Your task to perform on an android device: clear history in the chrome app Image 0: 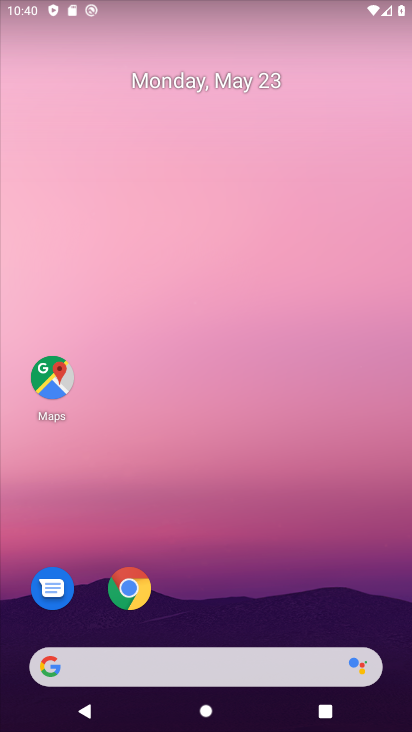
Step 0: drag from (358, 609) to (388, 209)
Your task to perform on an android device: clear history in the chrome app Image 1: 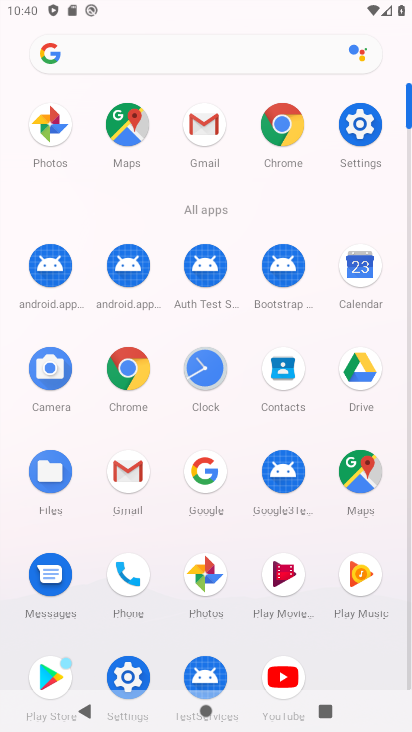
Step 1: click (128, 387)
Your task to perform on an android device: clear history in the chrome app Image 2: 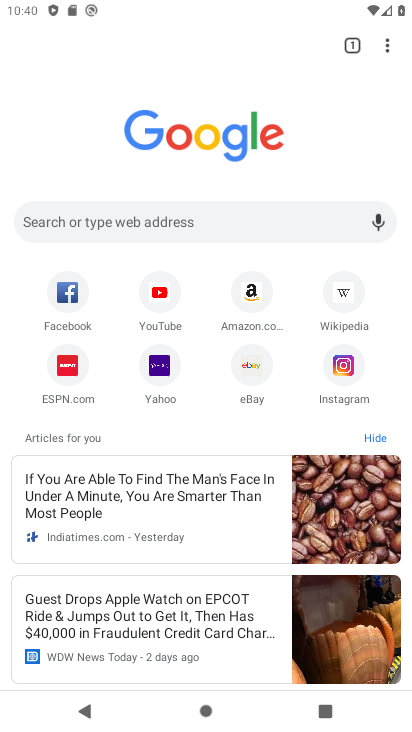
Step 2: task complete